Your task to perform on an android device: Open Google Image 0: 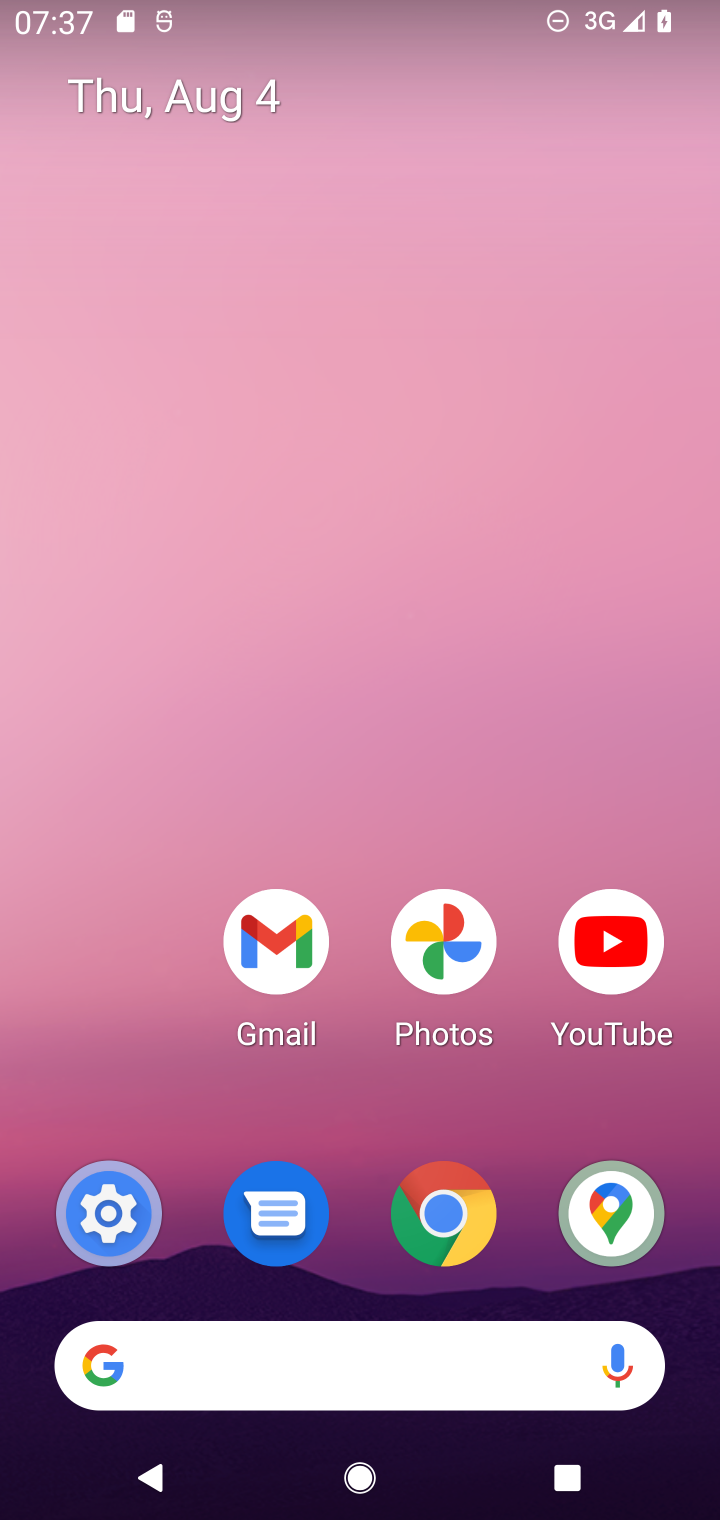
Step 0: press home button
Your task to perform on an android device: Open Google Image 1: 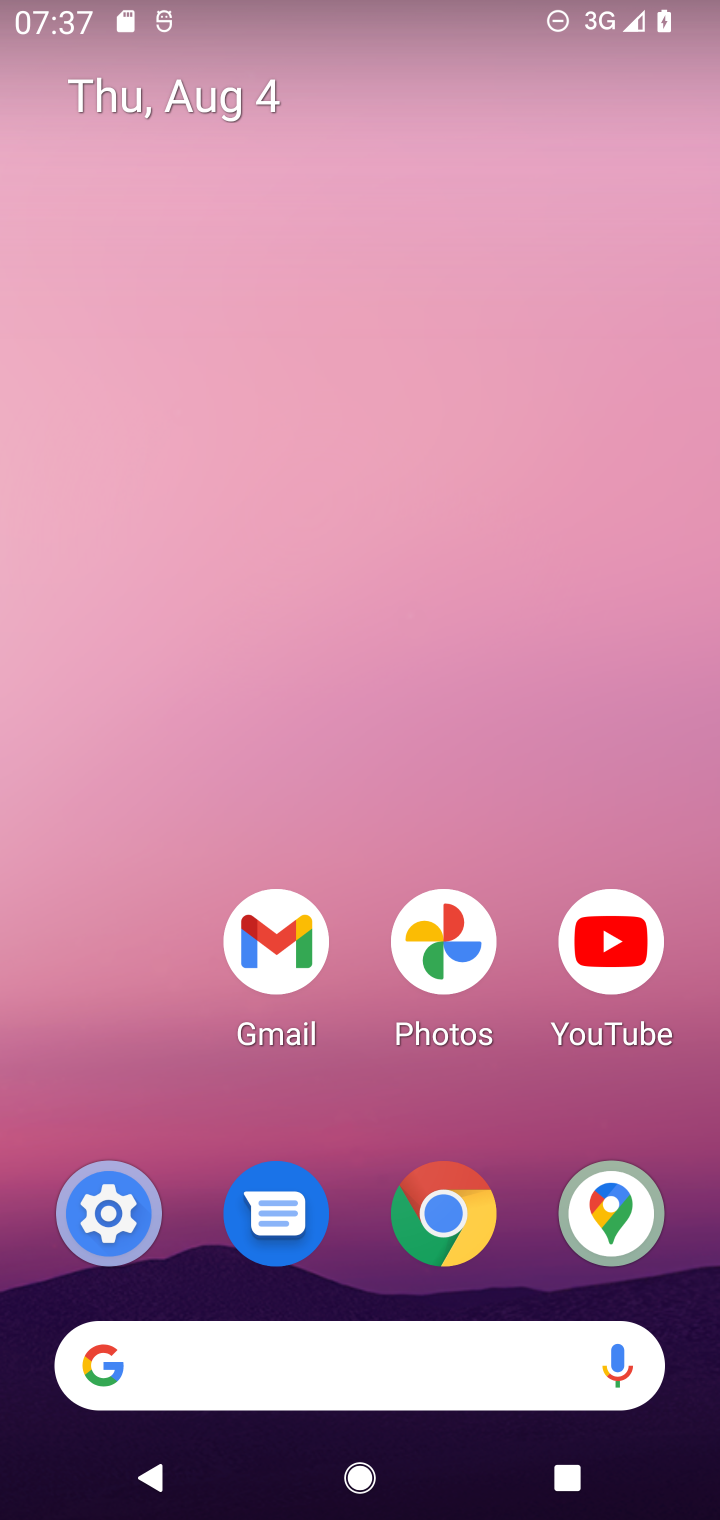
Step 1: drag from (186, 1141) to (200, 318)
Your task to perform on an android device: Open Google Image 2: 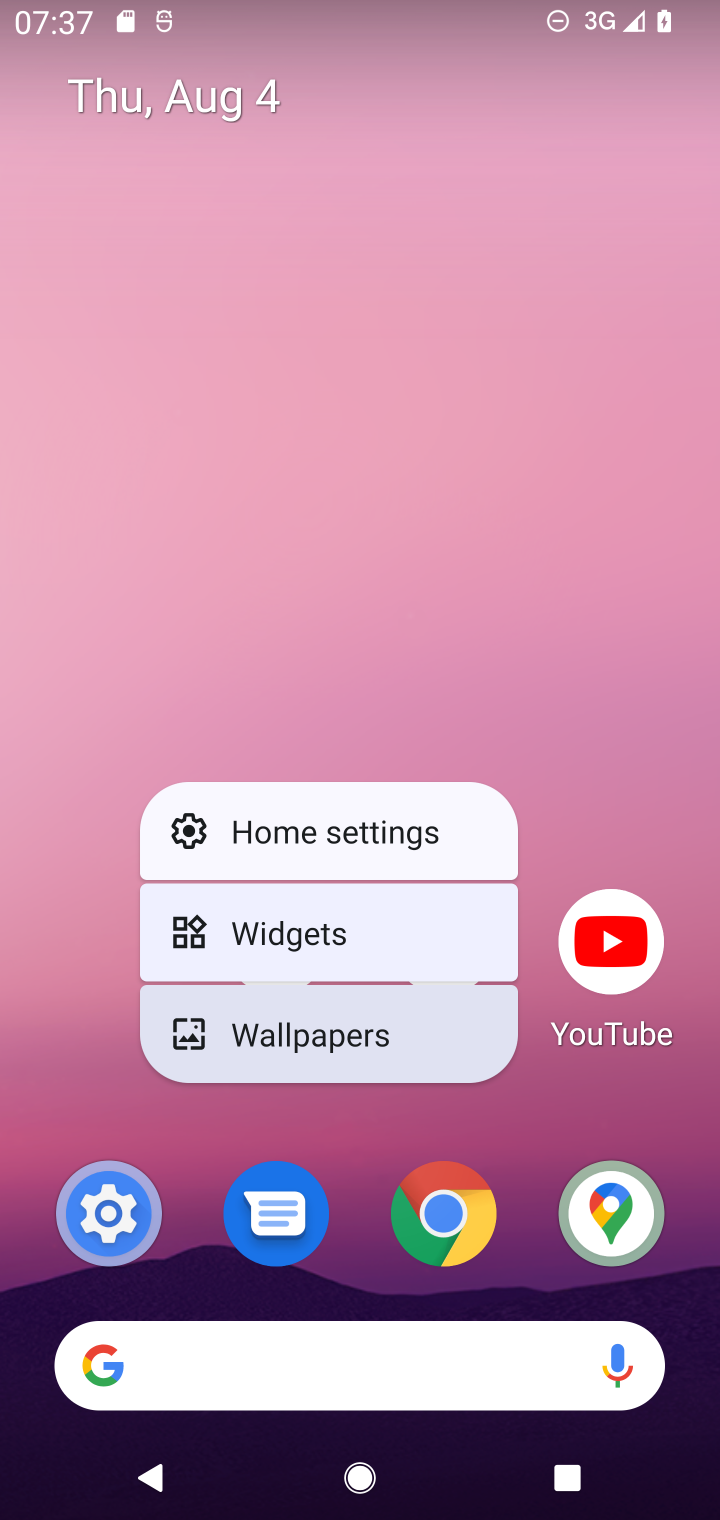
Step 2: click (95, 595)
Your task to perform on an android device: Open Google Image 3: 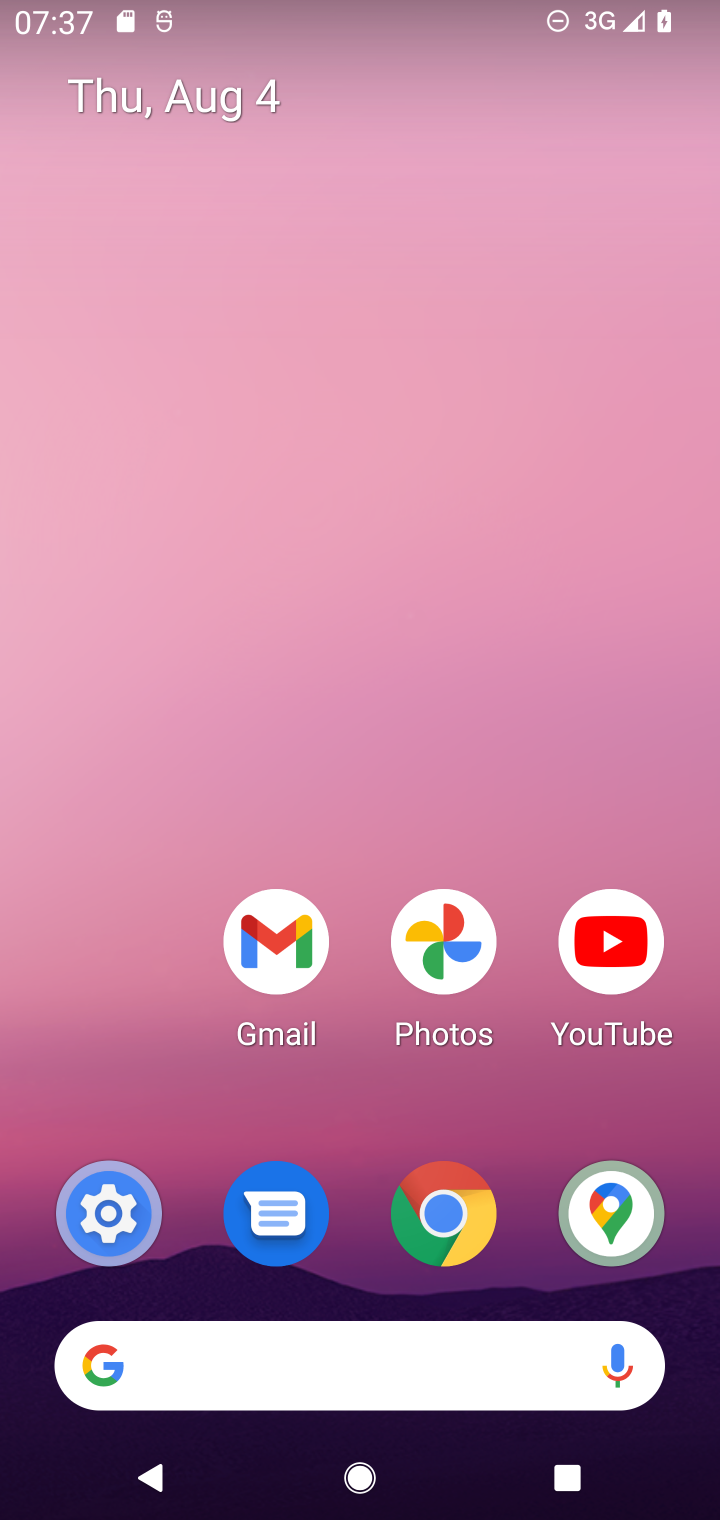
Step 3: drag from (164, 1002) to (208, 72)
Your task to perform on an android device: Open Google Image 4: 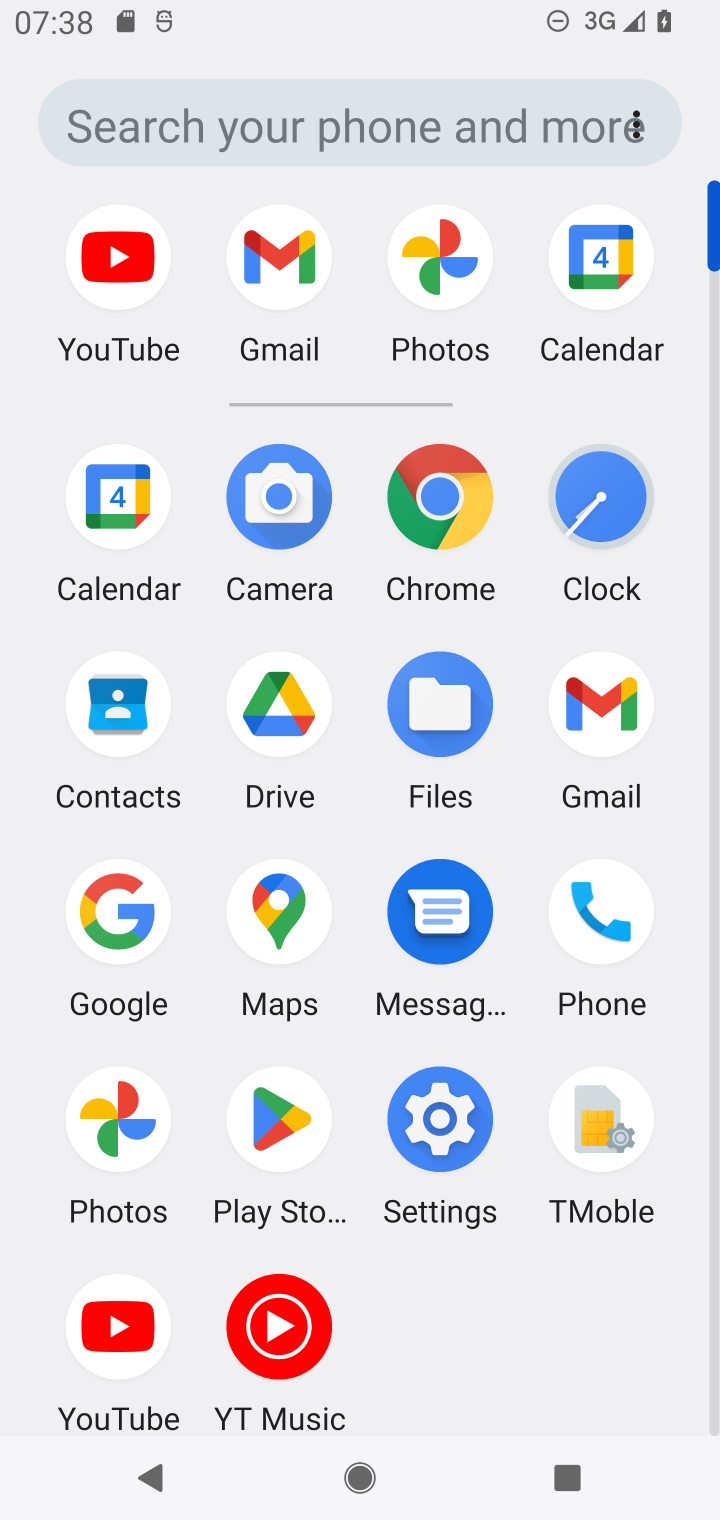
Step 4: click (111, 922)
Your task to perform on an android device: Open Google Image 5: 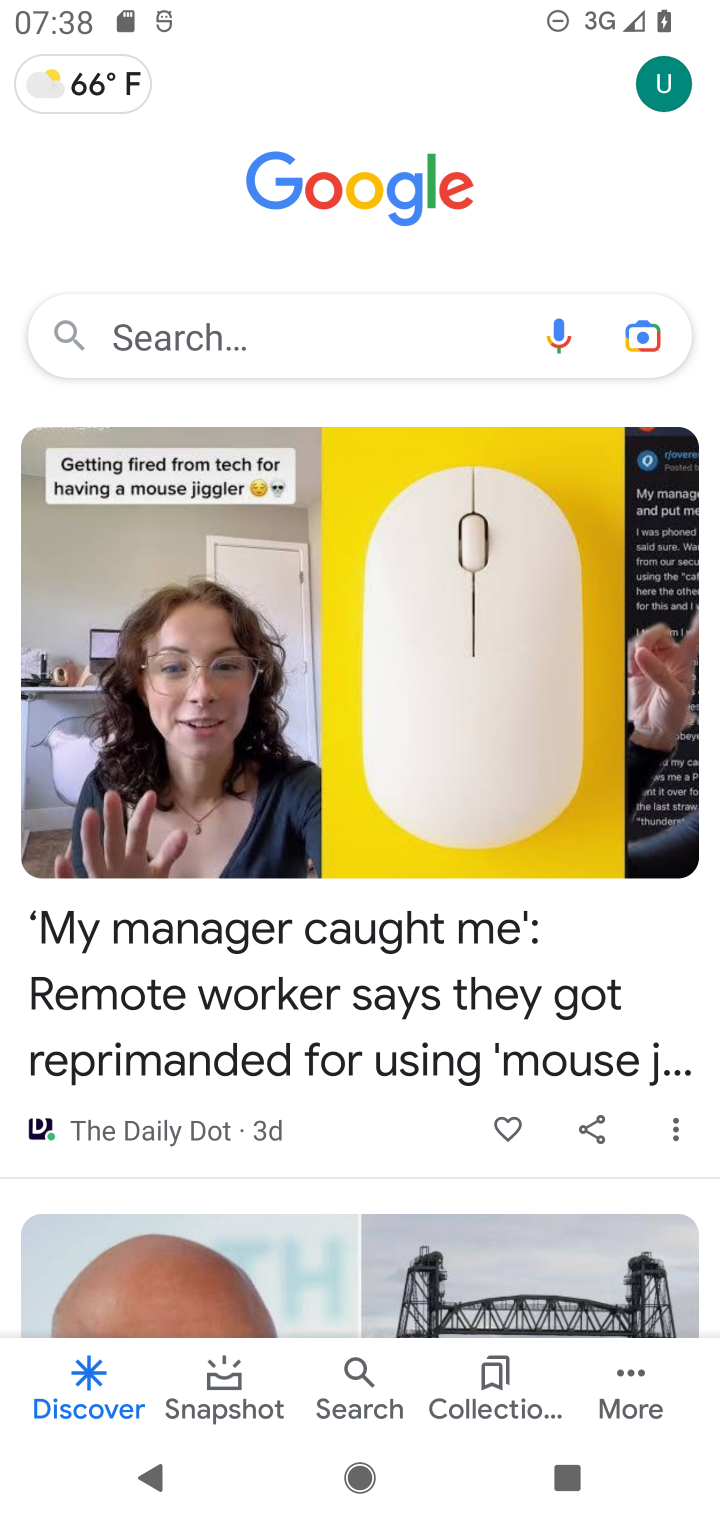
Step 5: task complete